Your task to perform on an android device: Go to Yahoo.com Image 0: 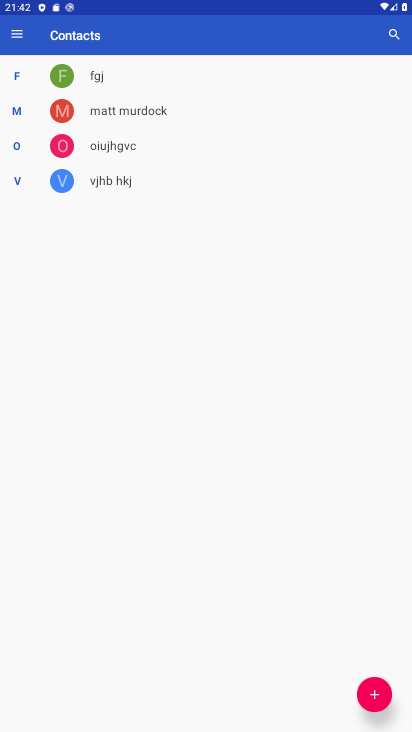
Step 0: press home button
Your task to perform on an android device: Go to Yahoo.com Image 1: 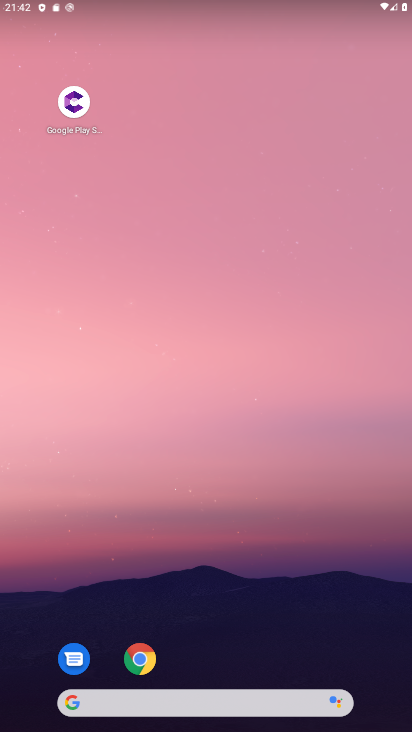
Step 1: click (144, 660)
Your task to perform on an android device: Go to Yahoo.com Image 2: 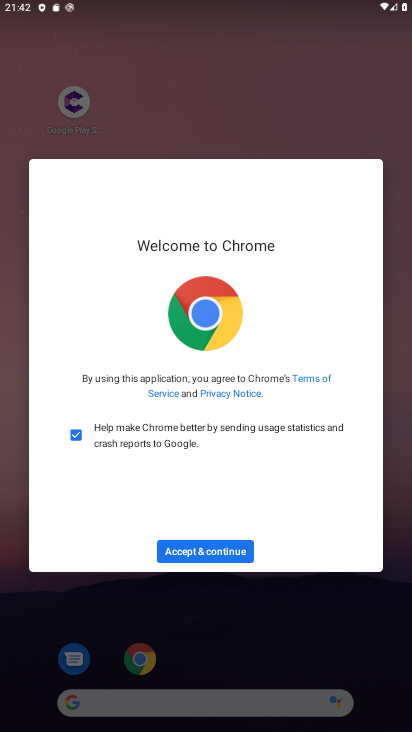
Step 2: click (211, 554)
Your task to perform on an android device: Go to Yahoo.com Image 3: 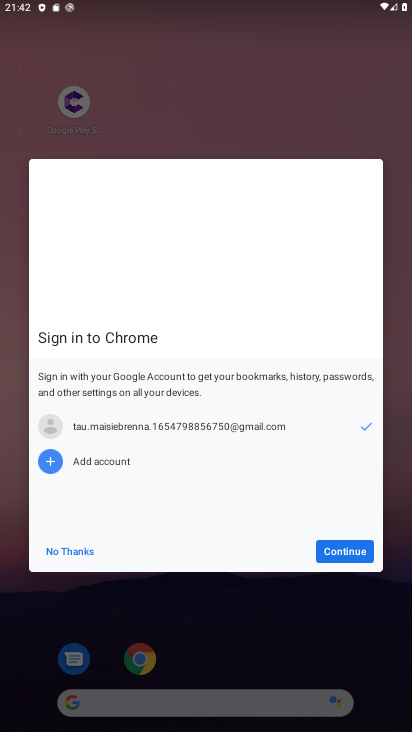
Step 3: click (339, 545)
Your task to perform on an android device: Go to Yahoo.com Image 4: 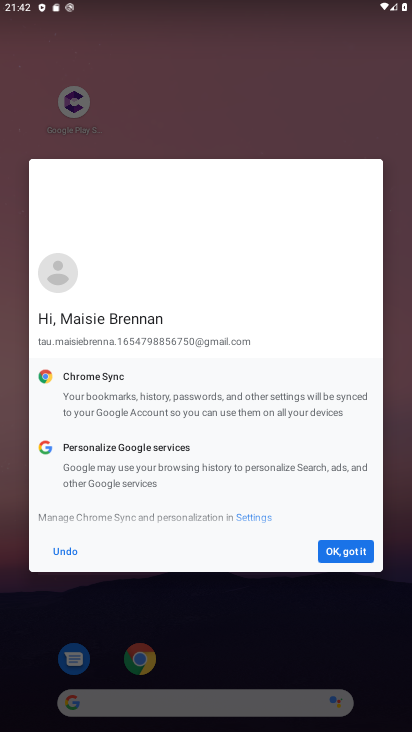
Step 4: click (339, 545)
Your task to perform on an android device: Go to Yahoo.com Image 5: 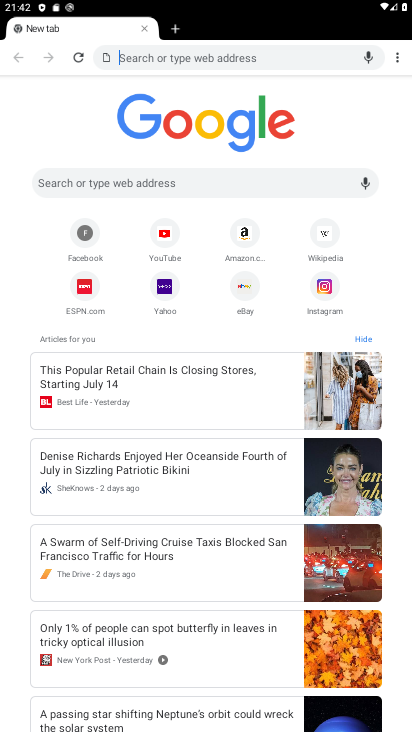
Step 5: click (156, 289)
Your task to perform on an android device: Go to Yahoo.com Image 6: 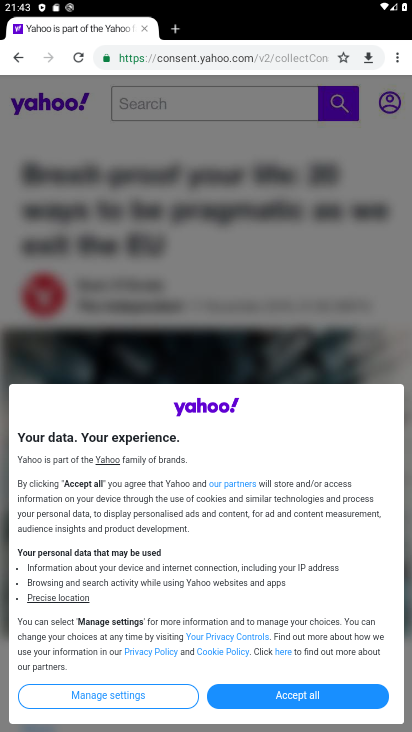
Step 6: click (273, 700)
Your task to perform on an android device: Go to Yahoo.com Image 7: 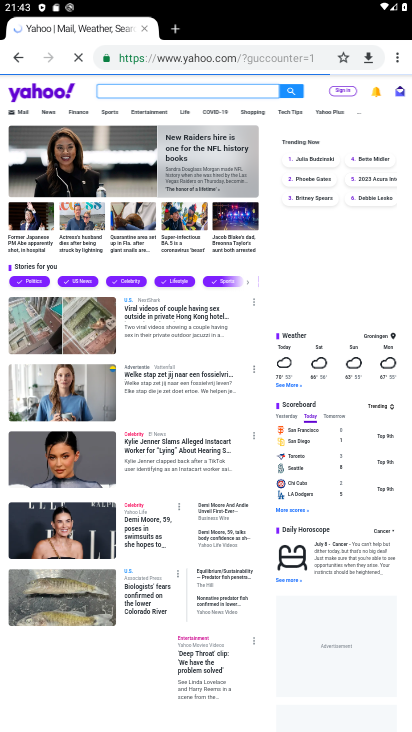
Step 7: task complete